Your task to perform on an android device: Open the web browser Image 0: 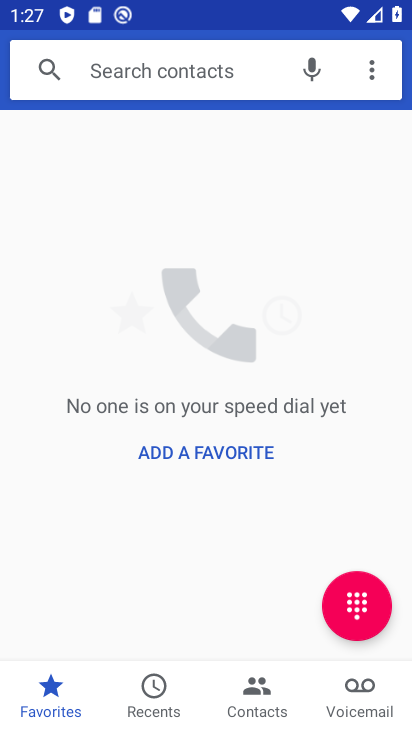
Step 0: press home button
Your task to perform on an android device: Open the web browser Image 1: 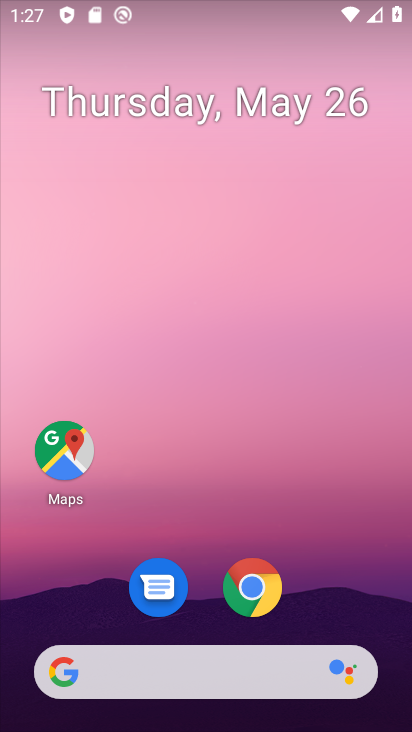
Step 1: drag from (330, 589) to (195, 24)
Your task to perform on an android device: Open the web browser Image 2: 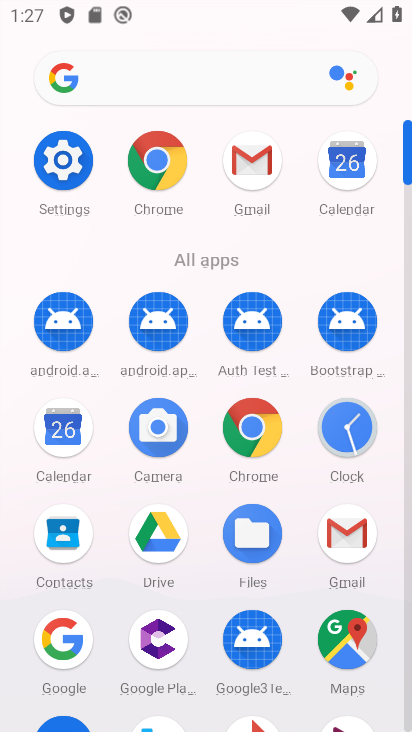
Step 2: drag from (9, 573) to (4, 224)
Your task to perform on an android device: Open the web browser Image 3: 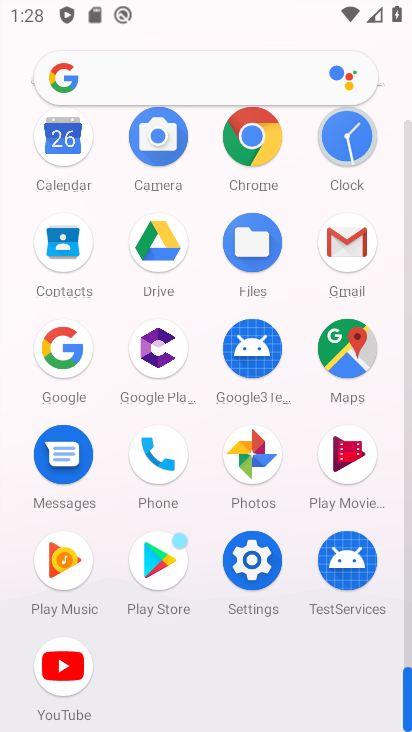
Step 3: click (250, 132)
Your task to perform on an android device: Open the web browser Image 4: 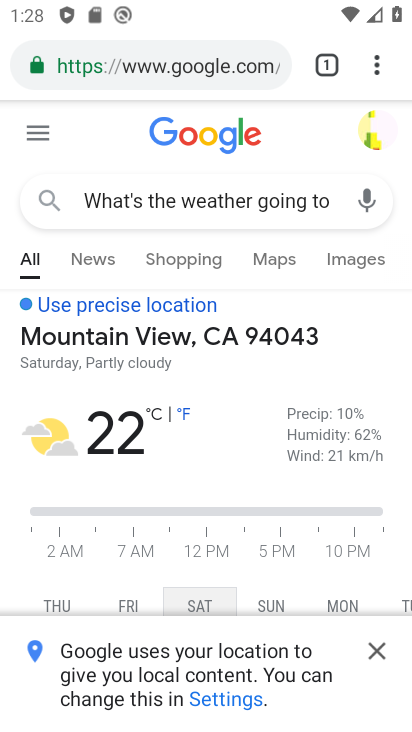
Step 4: task complete